Your task to perform on an android device: open wifi settings Image 0: 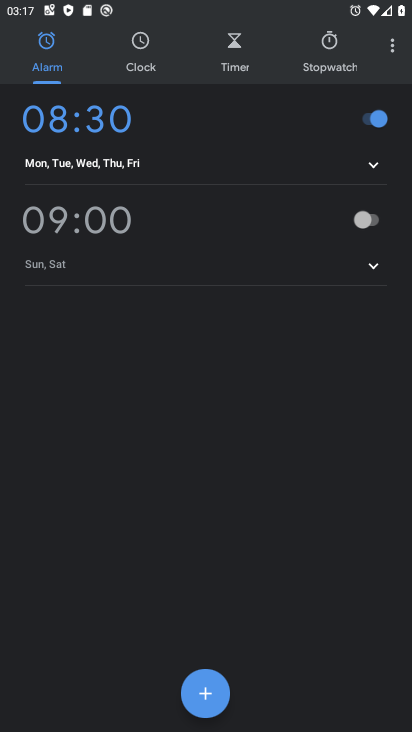
Step 0: press home button
Your task to perform on an android device: open wifi settings Image 1: 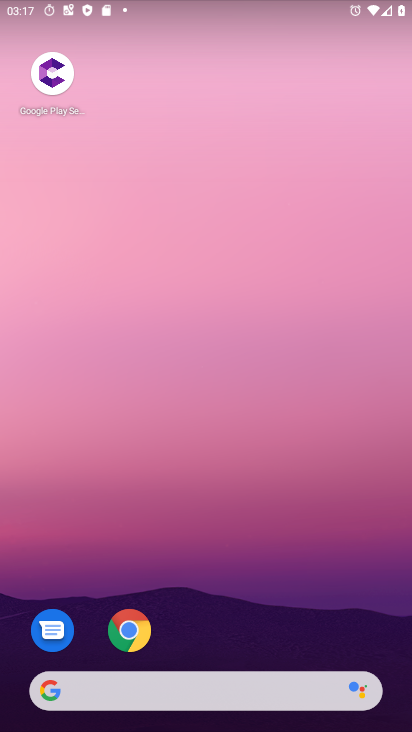
Step 1: drag from (240, 623) to (226, 40)
Your task to perform on an android device: open wifi settings Image 2: 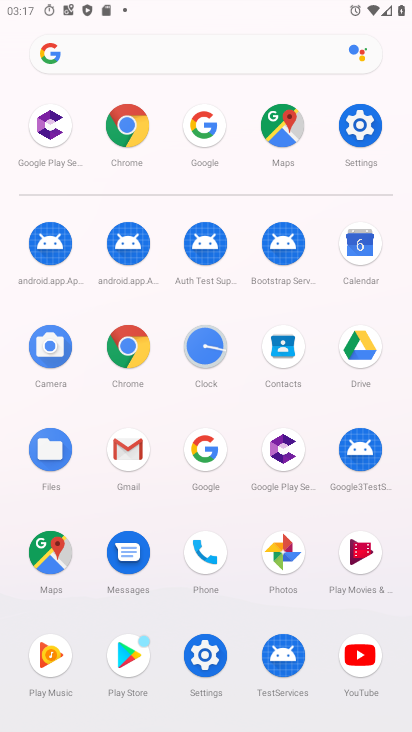
Step 2: click (356, 129)
Your task to perform on an android device: open wifi settings Image 3: 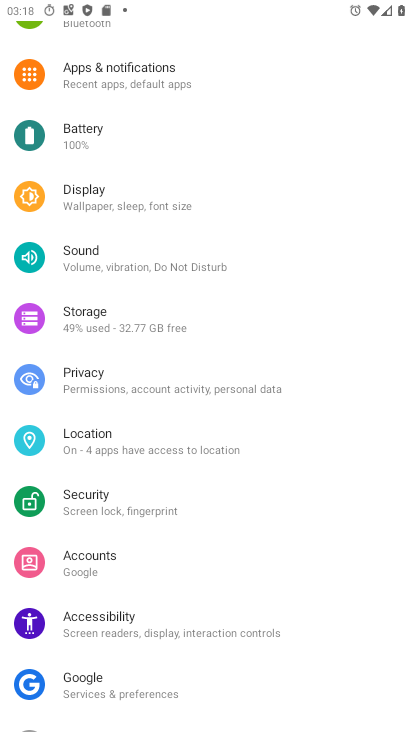
Step 3: drag from (153, 156) to (143, 500)
Your task to perform on an android device: open wifi settings Image 4: 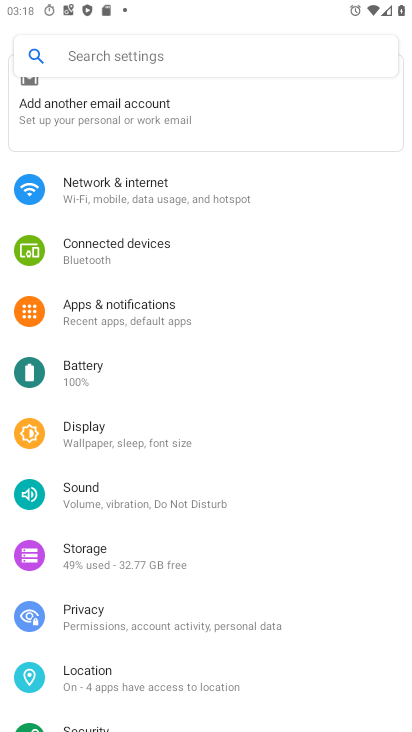
Step 4: click (121, 203)
Your task to perform on an android device: open wifi settings Image 5: 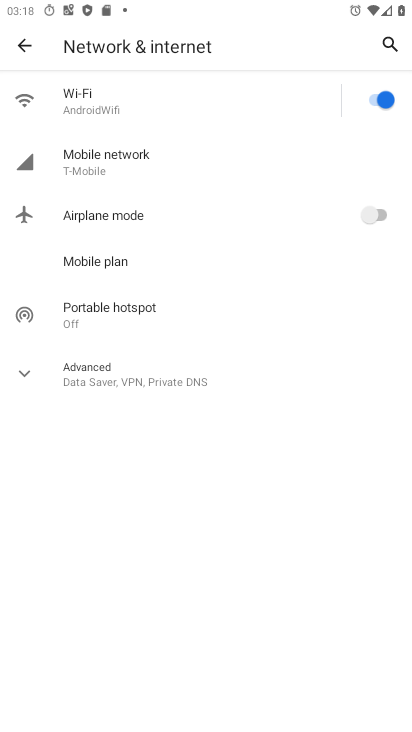
Step 5: click (102, 112)
Your task to perform on an android device: open wifi settings Image 6: 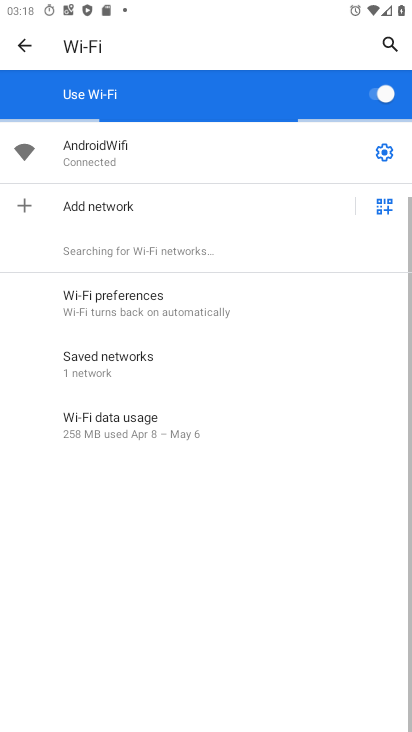
Step 6: task complete